Your task to perform on an android device: allow cookies in the chrome app Image 0: 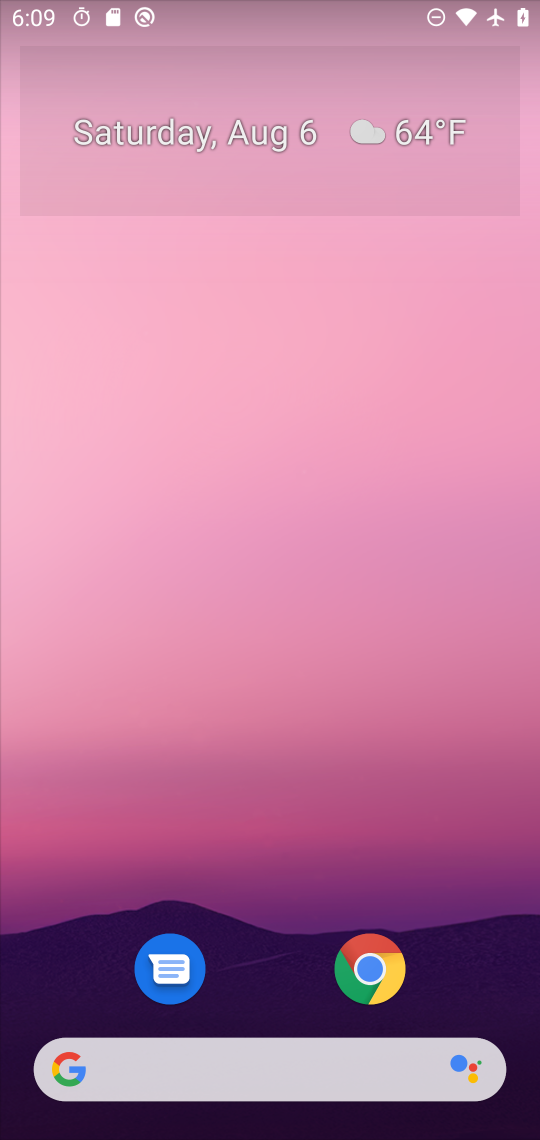
Step 0: press home button
Your task to perform on an android device: allow cookies in the chrome app Image 1: 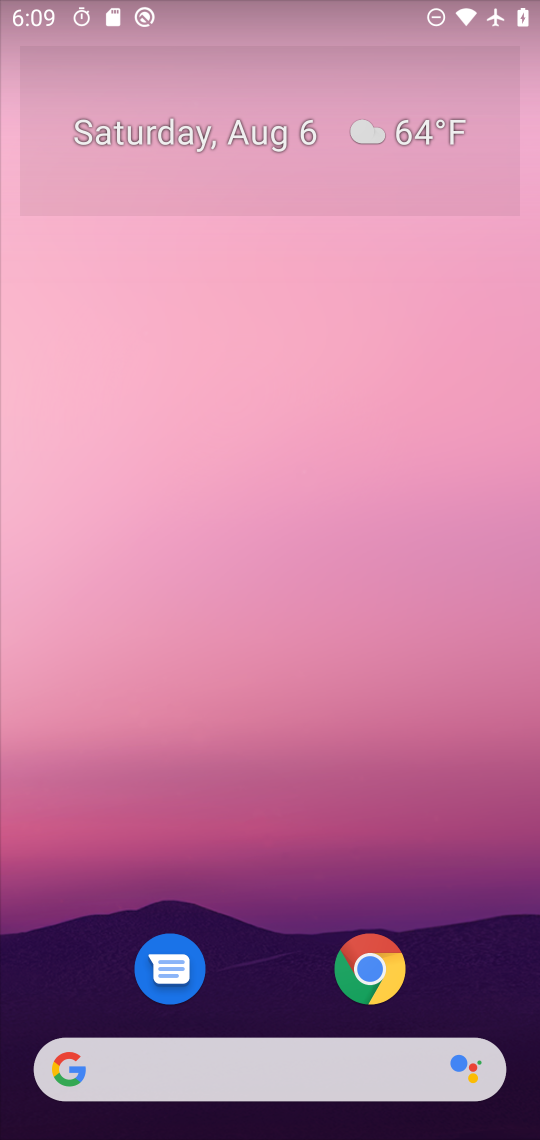
Step 1: drag from (317, 860) to (371, 142)
Your task to perform on an android device: allow cookies in the chrome app Image 2: 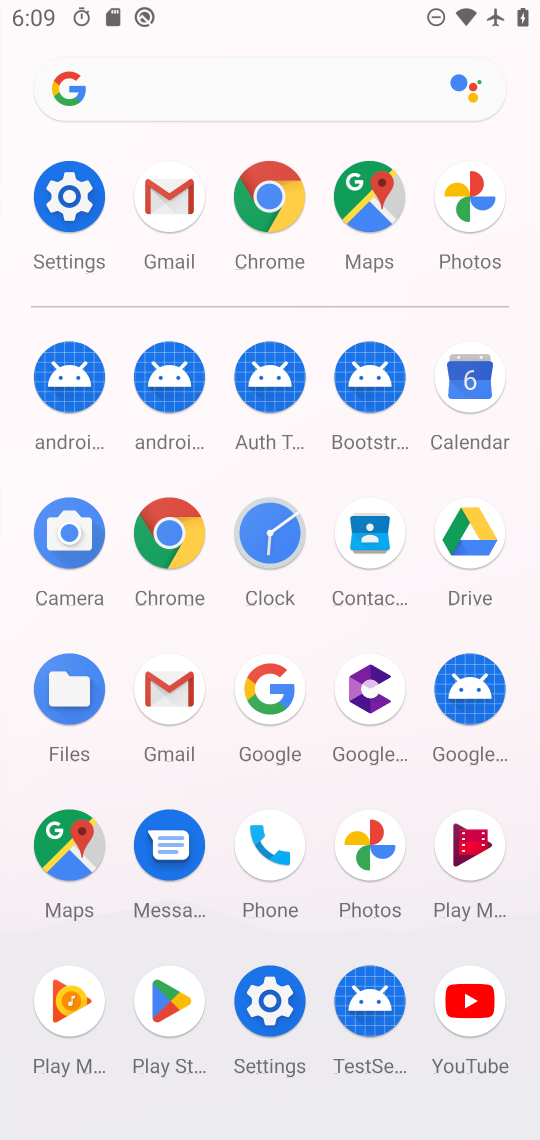
Step 2: click (267, 211)
Your task to perform on an android device: allow cookies in the chrome app Image 3: 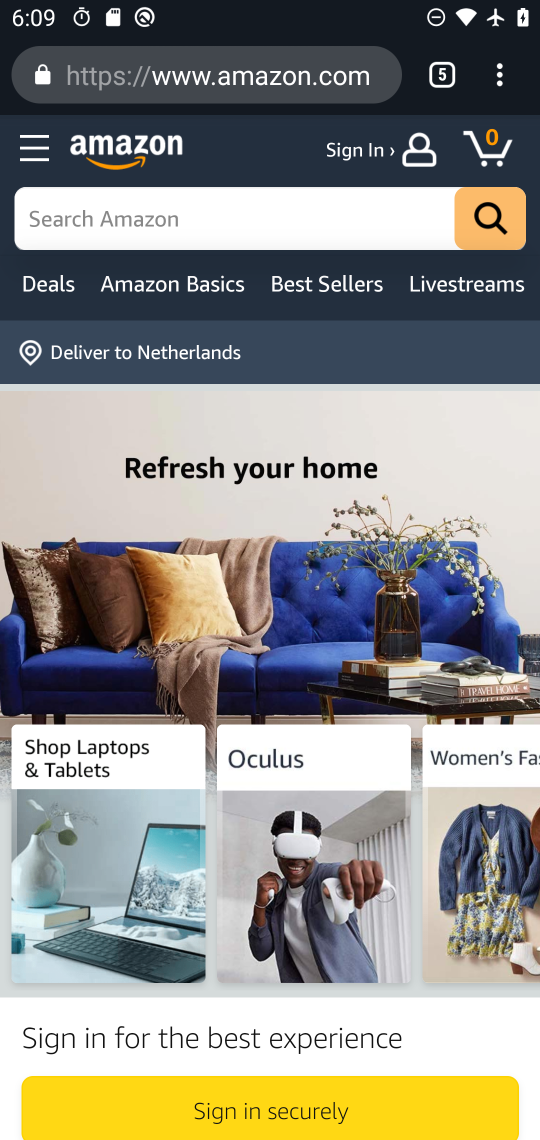
Step 3: drag from (502, 76) to (232, 995)
Your task to perform on an android device: allow cookies in the chrome app Image 4: 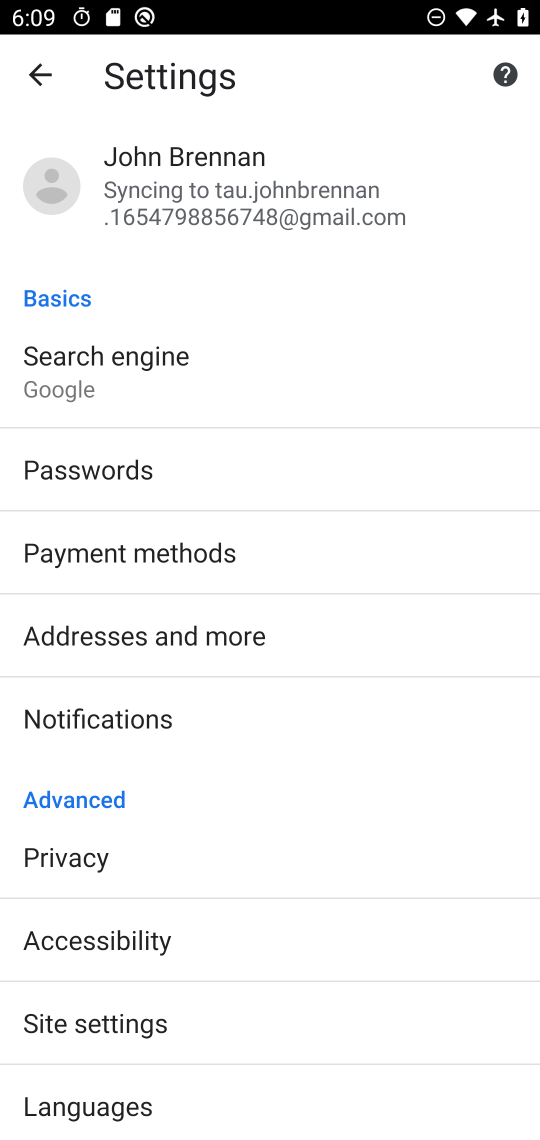
Step 4: click (92, 1021)
Your task to perform on an android device: allow cookies in the chrome app Image 5: 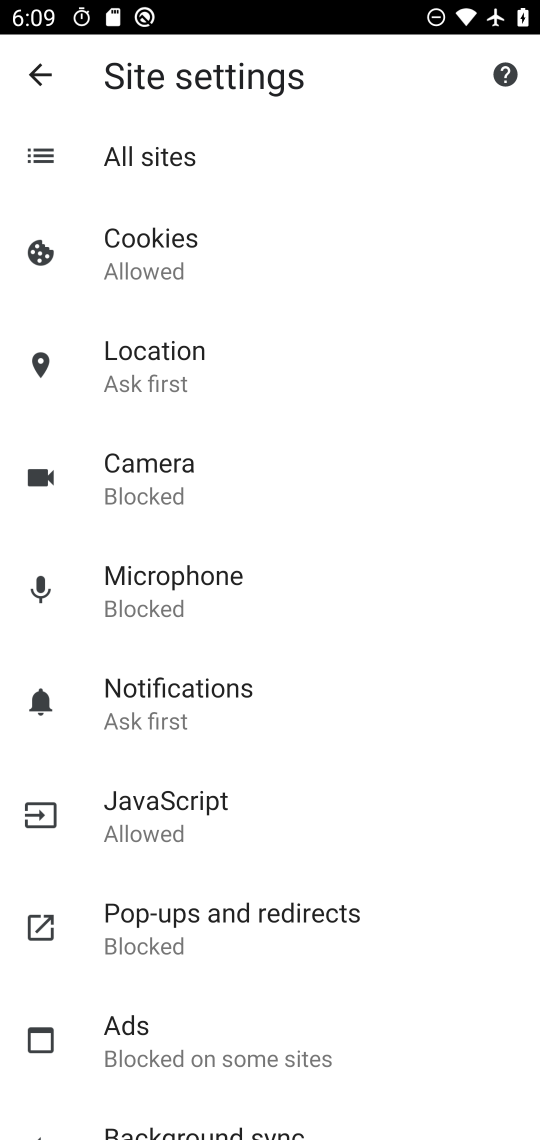
Step 5: click (147, 256)
Your task to perform on an android device: allow cookies in the chrome app Image 6: 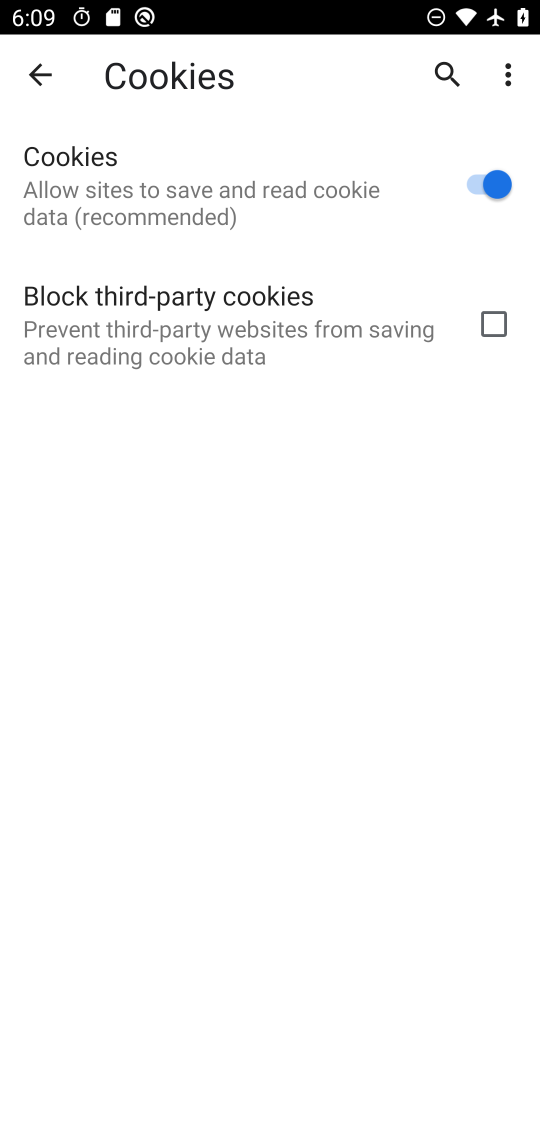
Step 6: task complete